Your task to perform on an android device: What's the weather going to be this weekend? Image 0: 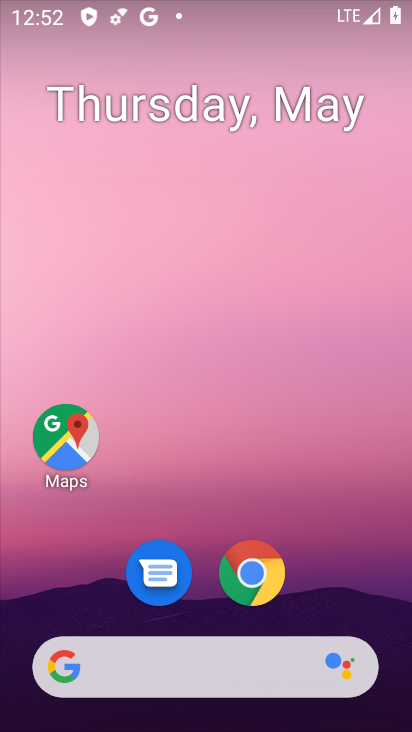
Step 0: drag from (336, 361) to (319, 22)
Your task to perform on an android device: What's the weather going to be this weekend? Image 1: 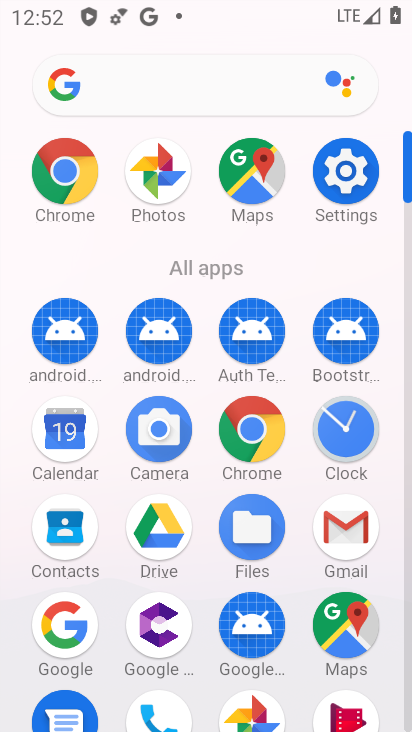
Step 1: drag from (7, 592) to (8, 319)
Your task to perform on an android device: What's the weather going to be this weekend? Image 2: 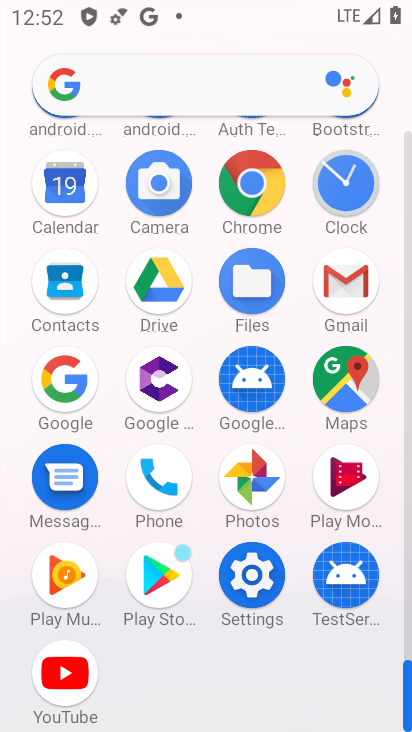
Step 2: click (255, 182)
Your task to perform on an android device: What's the weather going to be this weekend? Image 3: 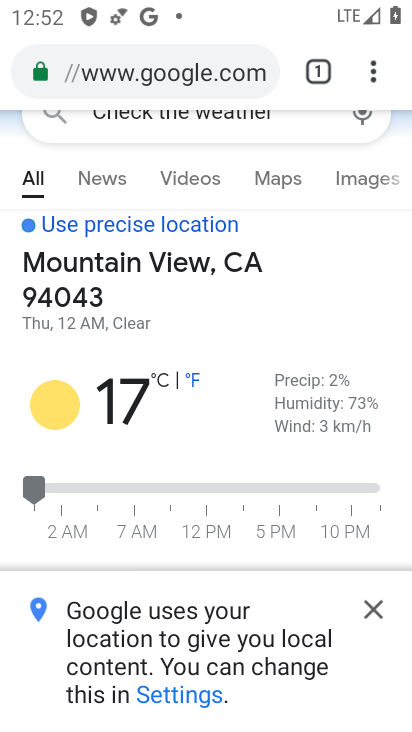
Step 3: click (143, 63)
Your task to perform on an android device: What's the weather going to be this weekend? Image 4: 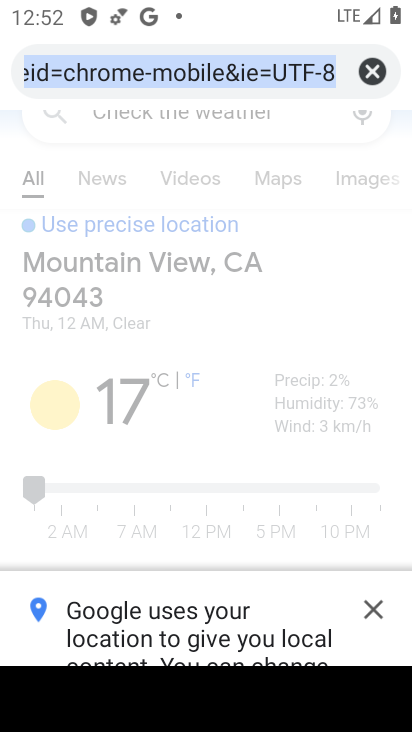
Step 4: click (367, 74)
Your task to perform on an android device: What's the weather going to be this weekend? Image 5: 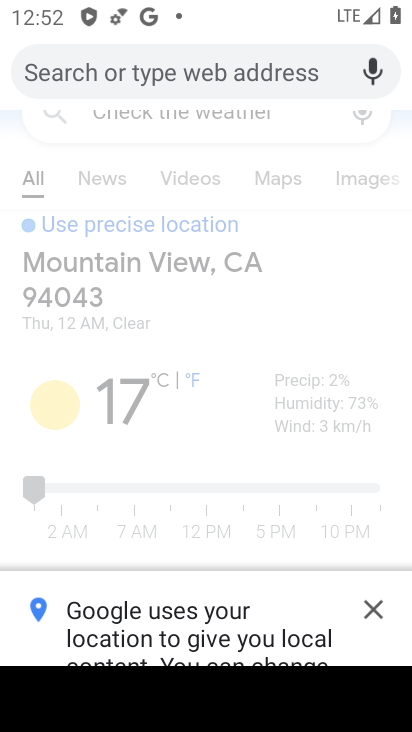
Step 5: type "What's the weather going to be this weekend?"
Your task to perform on an android device: What's the weather going to be this weekend? Image 6: 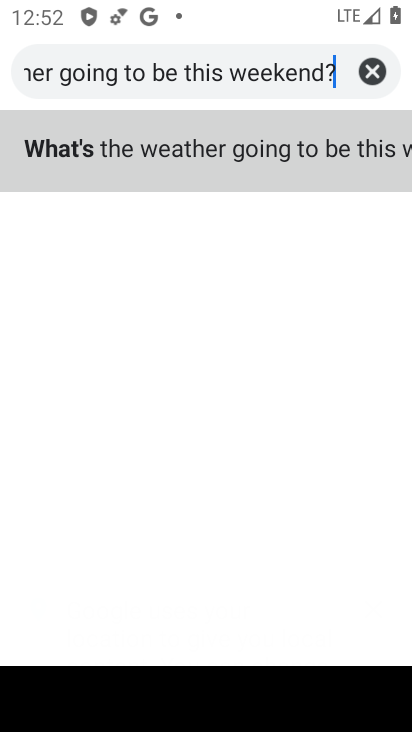
Step 6: type ""
Your task to perform on an android device: What's the weather going to be this weekend? Image 7: 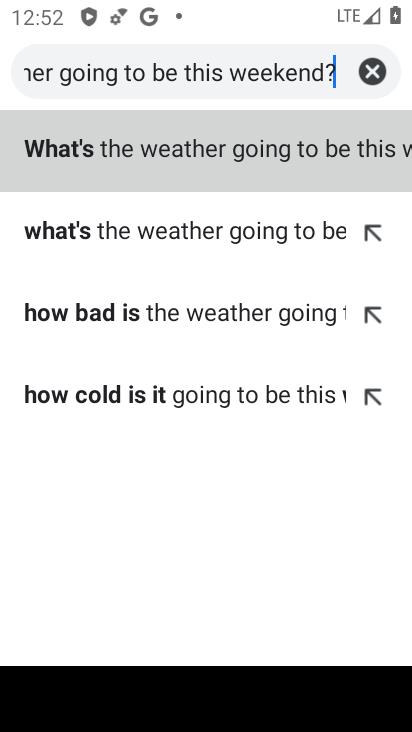
Step 7: click (200, 135)
Your task to perform on an android device: What's the weather going to be this weekend? Image 8: 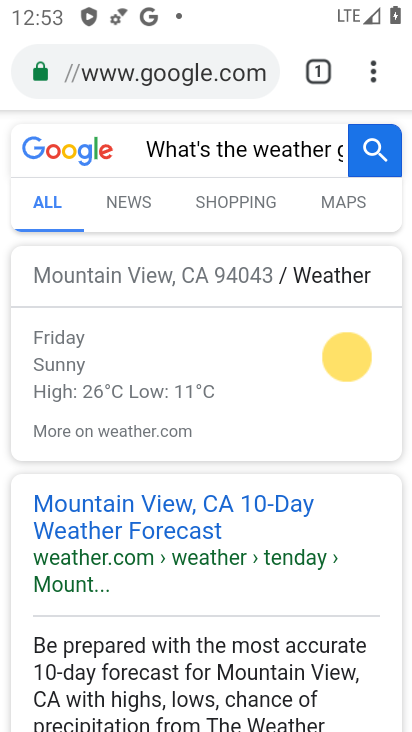
Step 8: task complete